Your task to perform on an android device: check data usage Image 0: 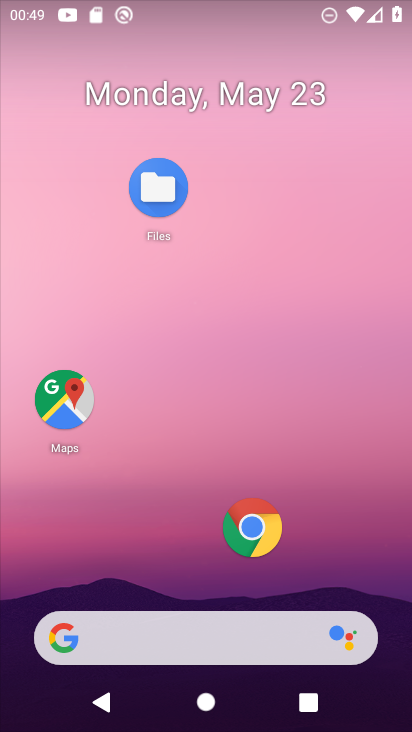
Step 0: drag from (183, 527) to (241, 10)
Your task to perform on an android device: check data usage Image 1: 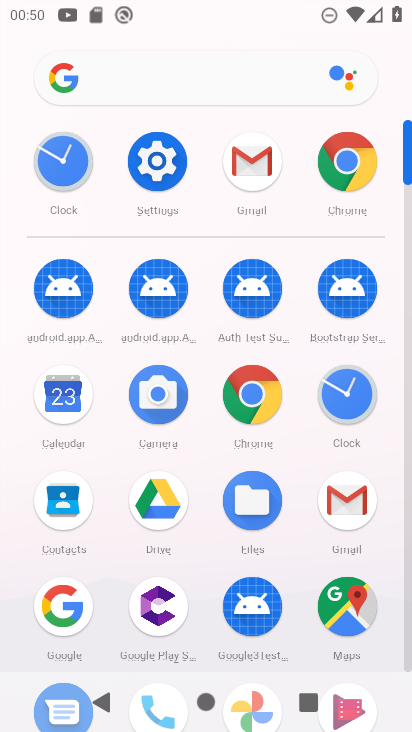
Step 1: click (144, 173)
Your task to perform on an android device: check data usage Image 2: 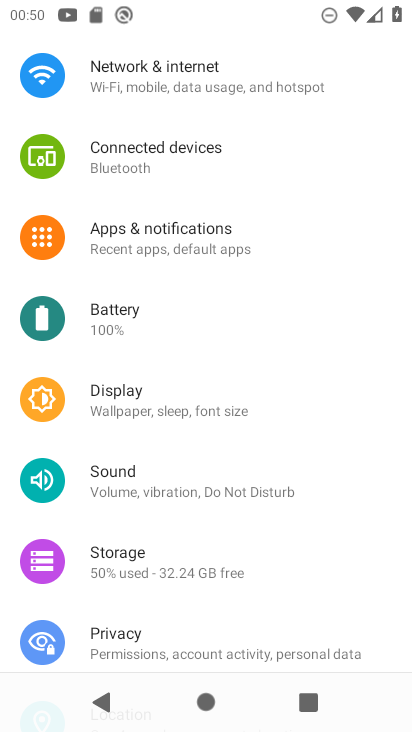
Step 2: drag from (225, 156) to (411, 418)
Your task to perform on an android device: check data usage Image 3: 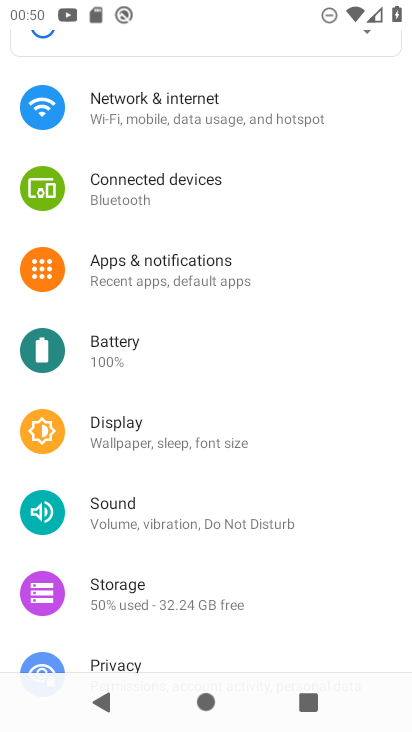
Step 3: click (153, 98)
Your task to perform on an android device: check data usage Image 4: 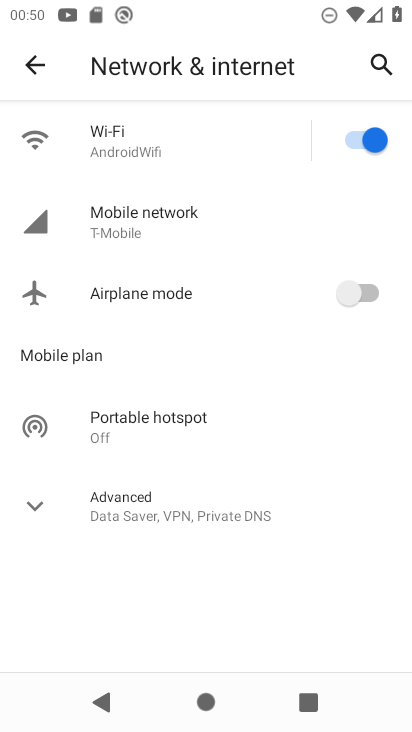
Step 4: click (133, 217)
Your task to perform on an android device: check data usage Image 5: 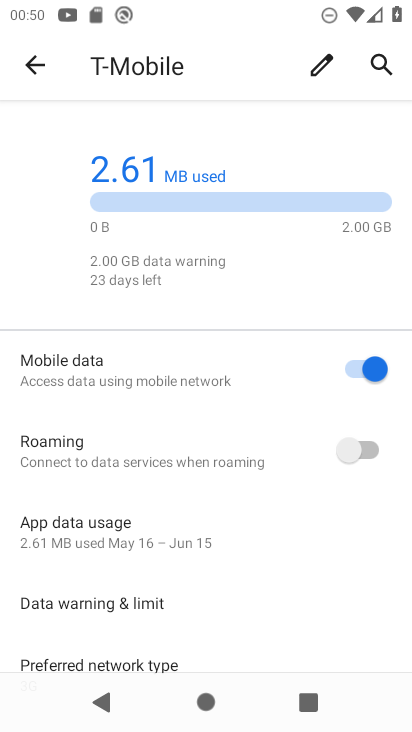
Step 5: task complete